Your task to perform on an android device: set the timer Image 0: 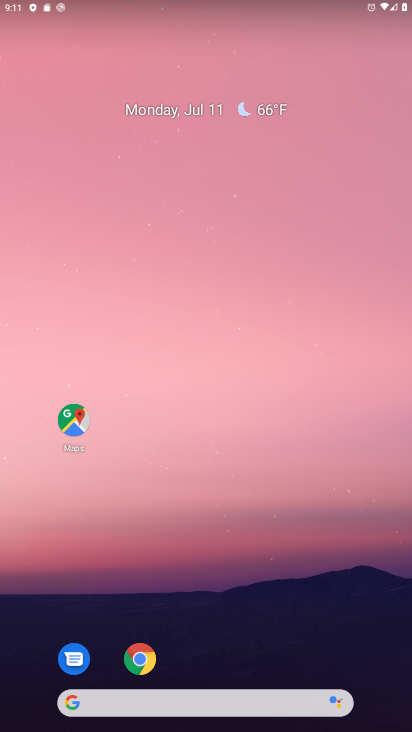
Step 0: drag from (365, 639) to (349, 261)
Your task to perform on an android device: set the timer Image 1: 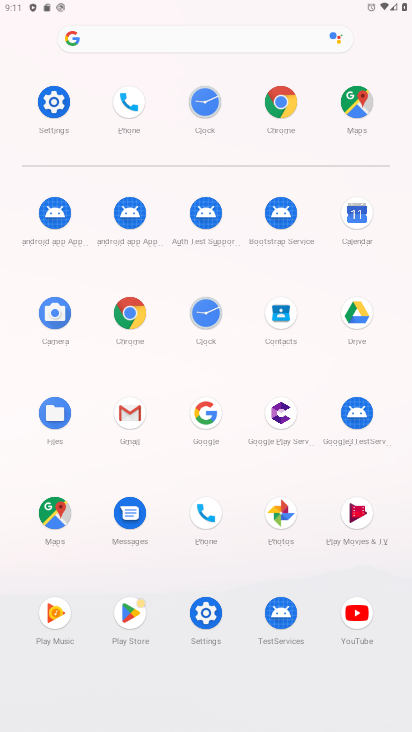
Step 1: click (206, 315)
Your task to perform on an android device: set the timer Image 2: 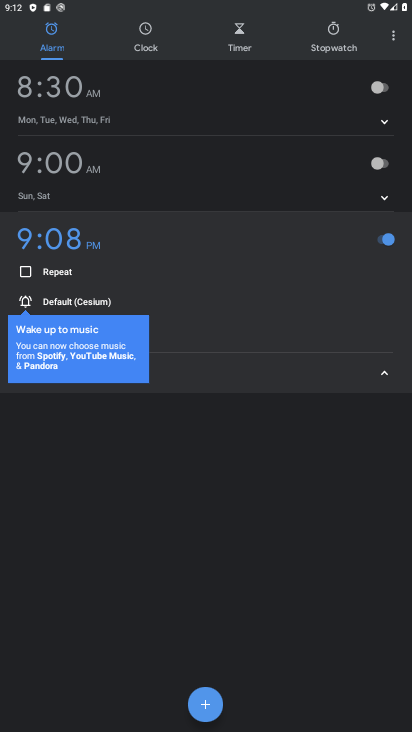
Step 2: click (236, 49)
Your task to perform on an android device: set the timer Image 3: 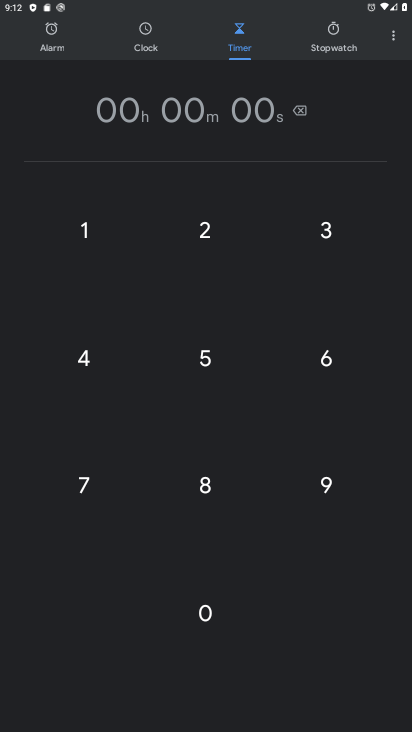
Step 3: click (208, 352)
Your task to perform on an android device: set the timer Image 4: 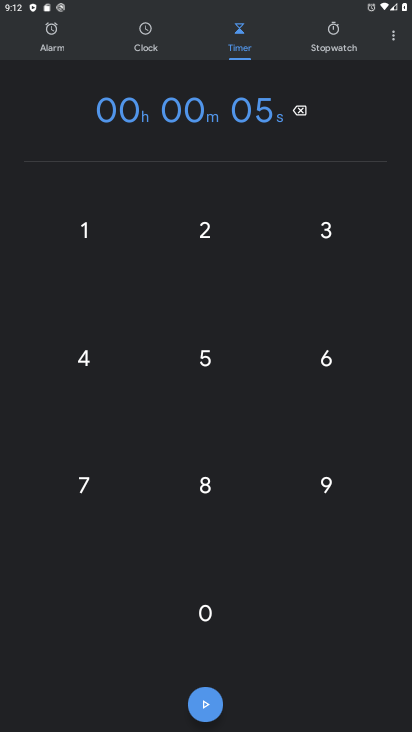
Step 4: task complete